Your task to perform on an android device: manage bookmarks in the chrome app Image 0: 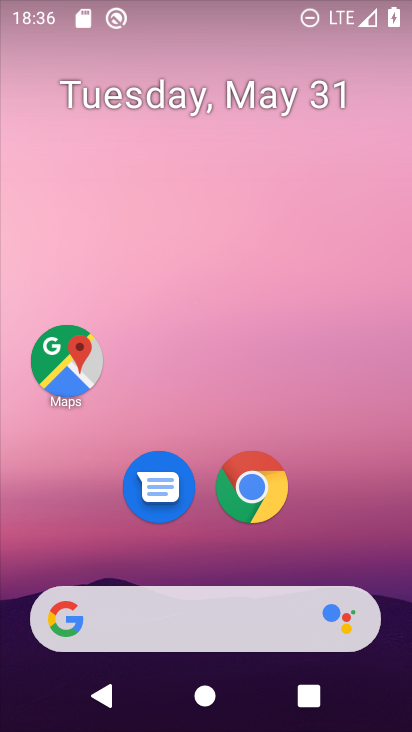
Step 0: click (256, 478)
Your task to perform on an android device: manage bookmarks in the chrome app Image 1: 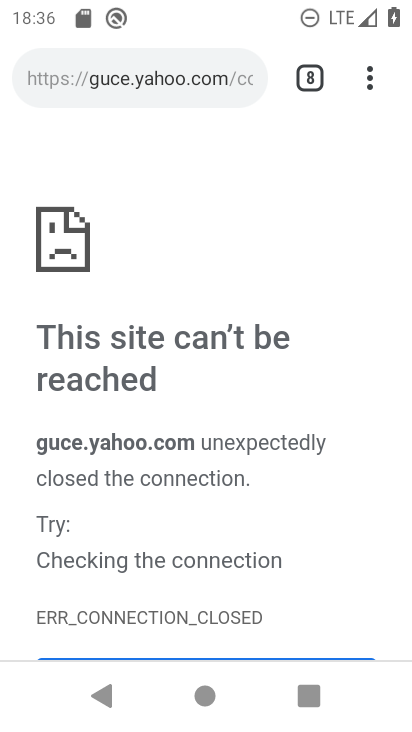
Step 1: click (369, 76)
Your task to perform on an android device: manage bookmarks in the chrome app Image 2: 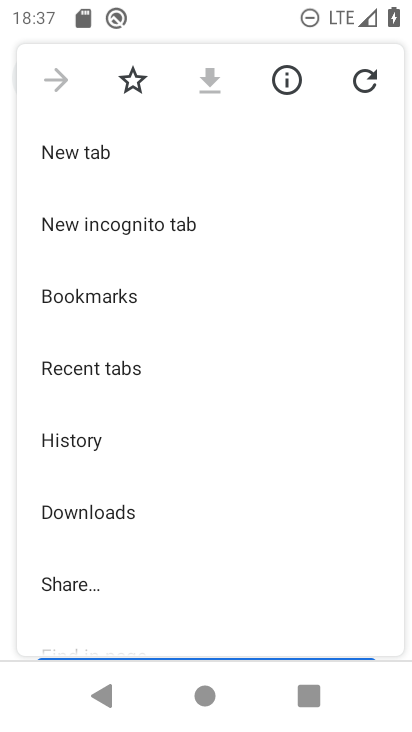
Step 2: click (103, 290)
Your task to perform on an android device: manage bookmarks in the chrome app Image 3: 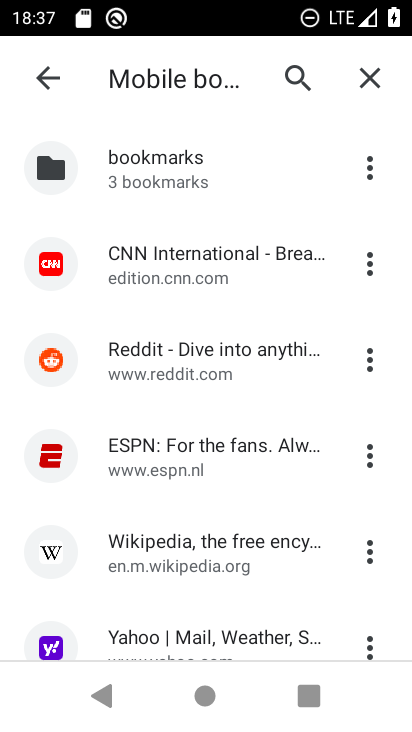
Step 3: click (366, 160)
Your task to perform on an android device: manage bookmarks in the chrome app Image 4: 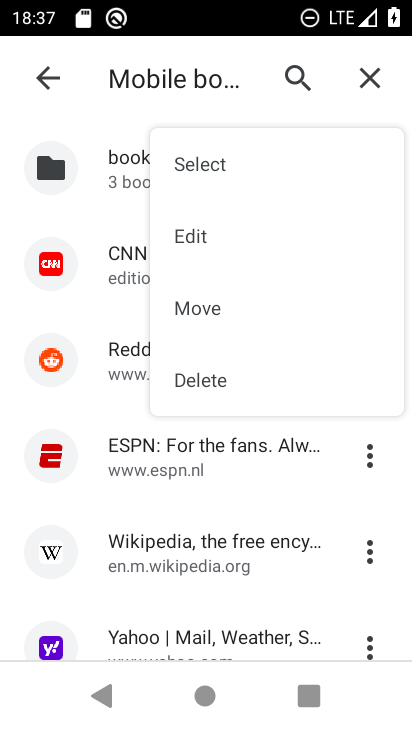
Step 4: click (198, 234)
Your task to perform on an android device: manage bookmarks in the chrome app Image 5: 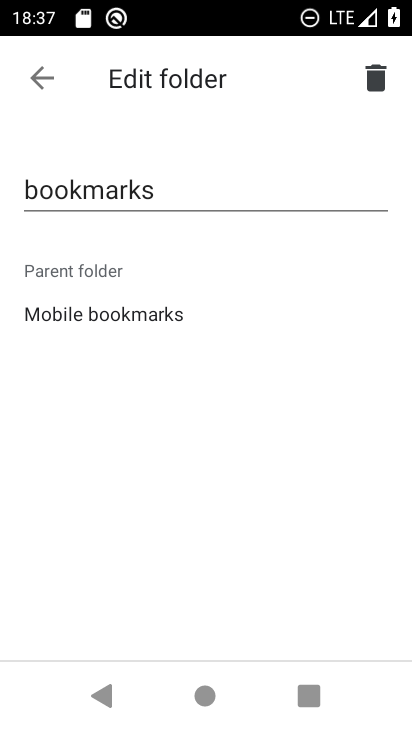
Step 5: task complete